Your task to perform on an android device: delete browsing data in the chrome app Image 0: 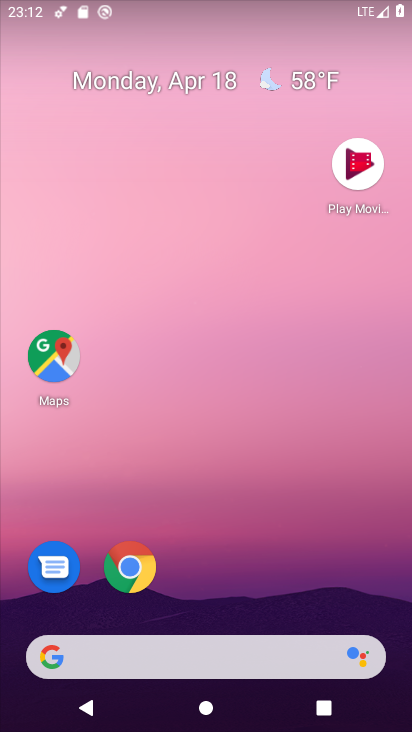
Step 0: drag from (194, 612) to (218, 88)
Your task to perform on an android device: delete browsing data in the chrome app Image 1: 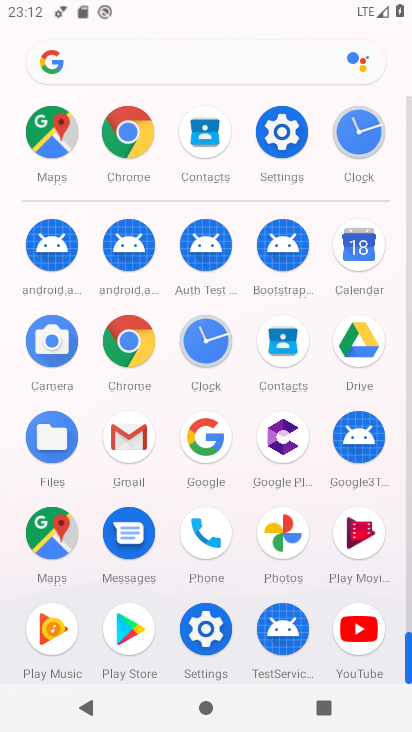
Step 1: click (129, 329)
Your task to perform on an android device: delete browsing data in the chrome app Image 2: 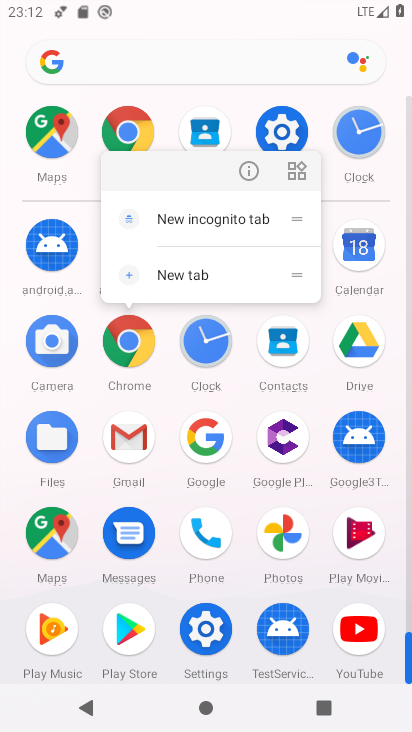
Step 2: click (234, 161)
Your task to perform on an android device: delete browsing data in the chrome app Image 3: 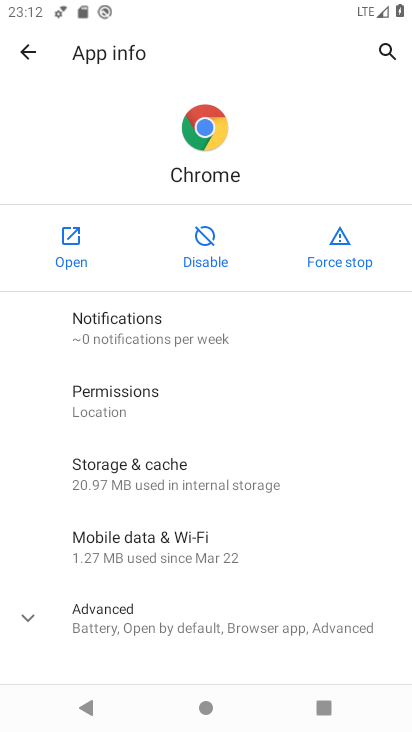
Step 3: click (72, 254)
Your task to perform on an android device: delete browsing data in the chrome app Image 4: 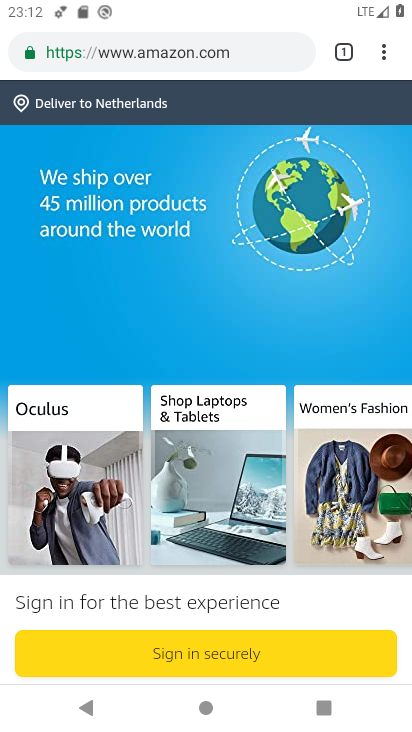
Step 4: click (376, 41)
Your task to perform on an android device: delete browsing data in the chrome app Image 5: 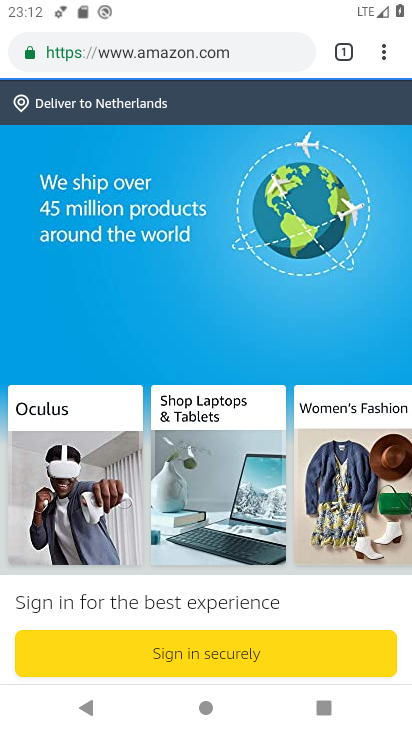
Step 5: drag from (383, 48) to (271, 356)
Your task to perform on an android device: delete browsing data in the chrome app Image 6: 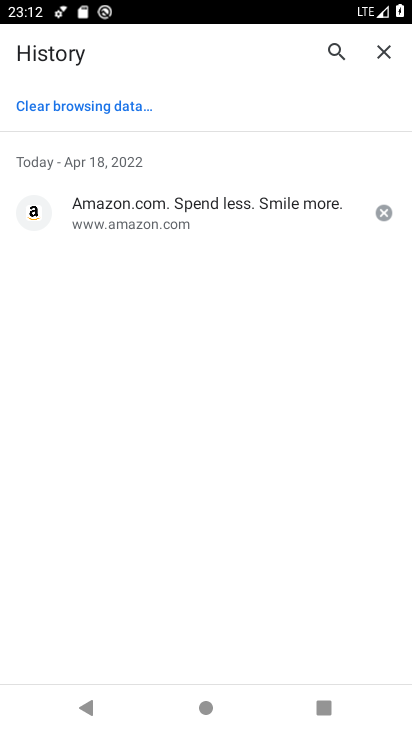
Step 6: click (385, 213)
Your task to perform on an android device: delete browsing data in the chrome app Image 7: 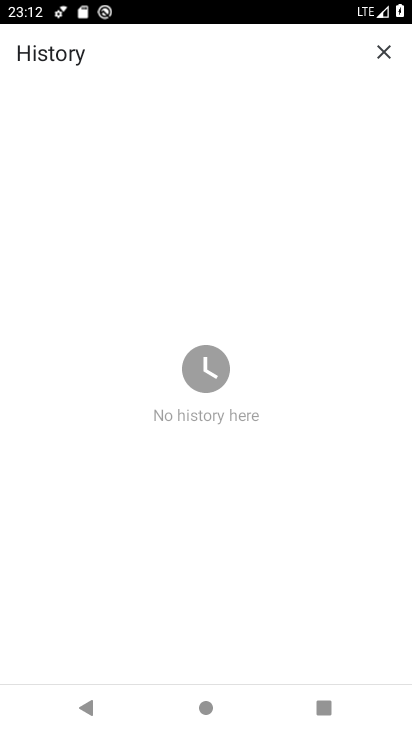
Step 7: task complete